Your task to perform on an android device: Search for pizza restaurants on Maps Image 0: 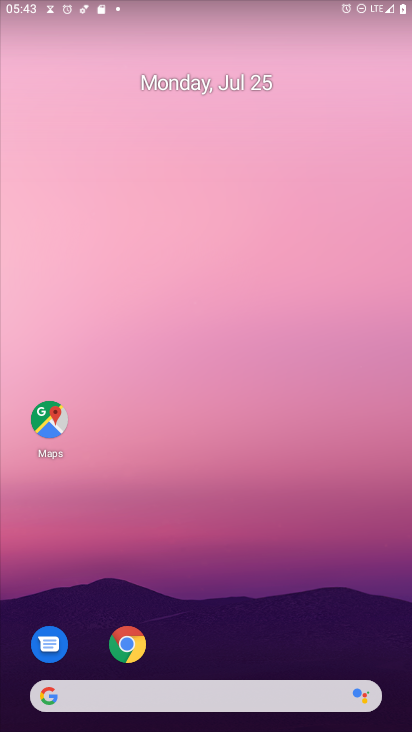
Step 0: drag from (251, 639) to (208, 108)
Your task to perform on an android device: Search for pizza restaurants on Maps Image 1: 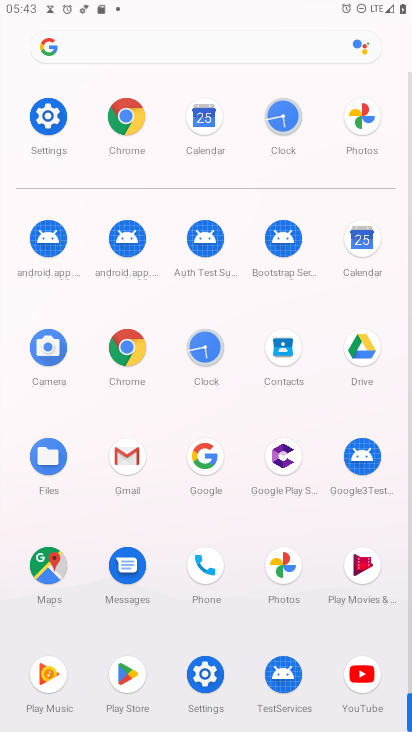
Step 1: click (36, 568)
Your task to perform on an android device: Search for pizza restaurants on Maps Image 2: 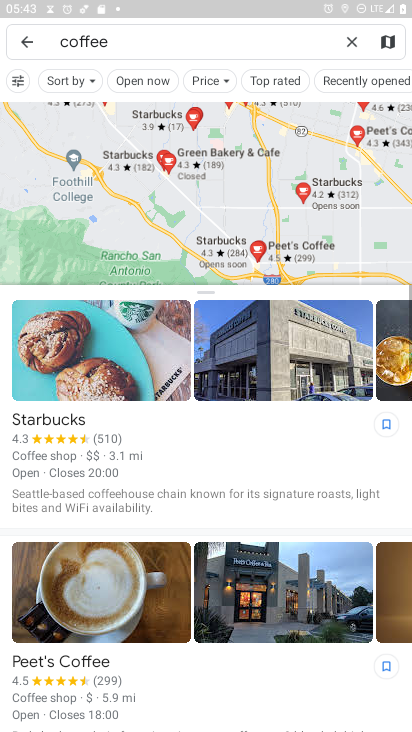
Step 2: click (353, 36)
Your task to perform on an android device: Search for pizza restaurants on Maps Image 3: 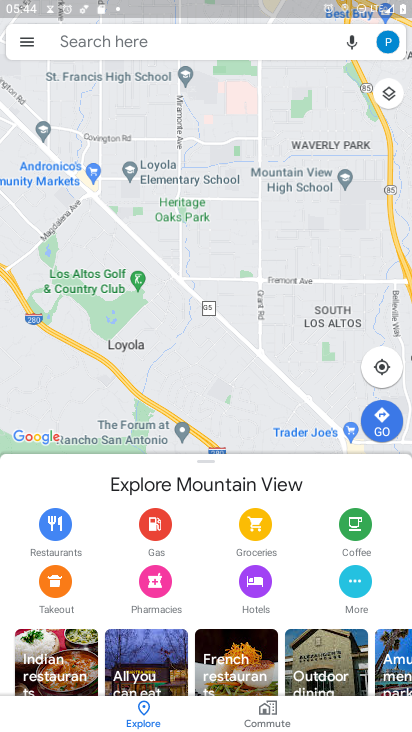
Step 3: type " pizza restaurants"
Your task to perform on an android device: Search for pizza restaurants on Maps Image 4: 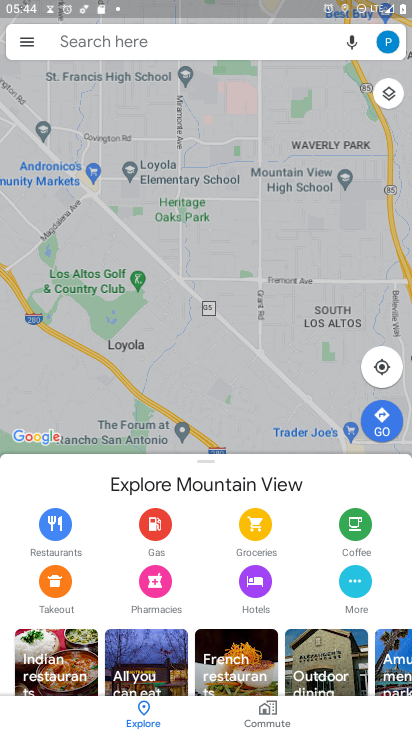
Step 4: press enter
Your task to perform on an android device: Search for pizza restaurants on Maps Image 5: 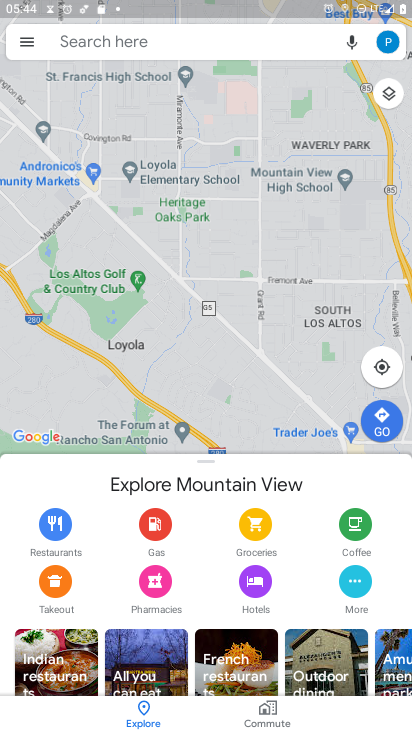
Step 5: type " pizza restaurants"
Your task to perform on an android device: Search for pizza restaurants on Maps Image 6: 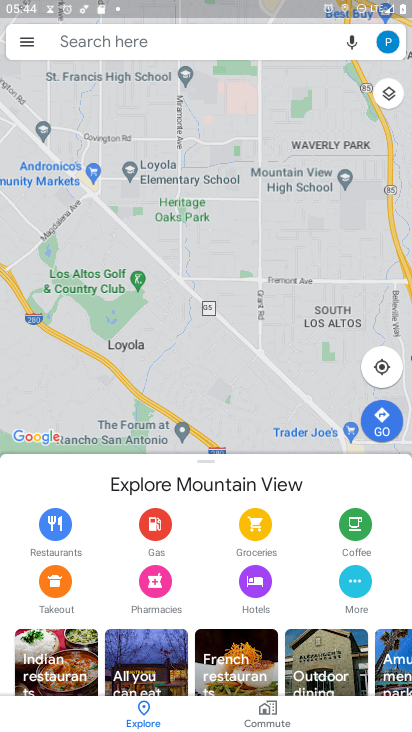
Step 6: click (251, 41)
Your task to perform on an android device: Search for pizza restaurants on Maps Image 7: 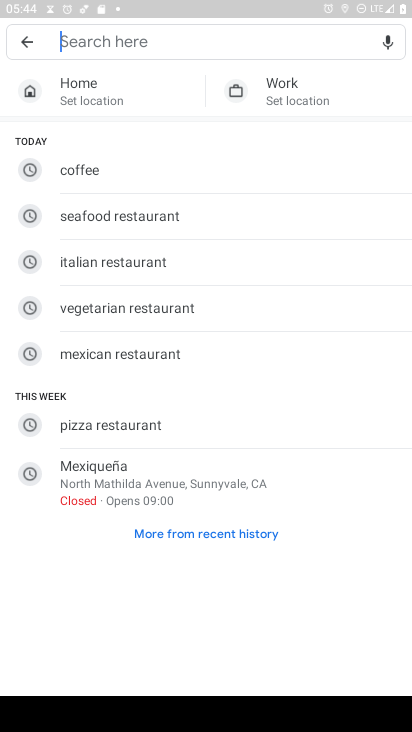
Step 7: click (115, 426)
Your task to perform on an android device: Search for pizza restaurants on Maps Image 8: 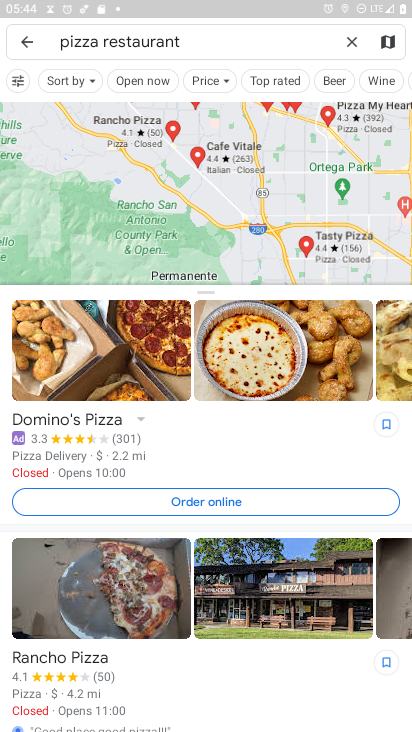
Step 8: task complete